Your task to perform on an android device: Go to accessibility settings Image 0: 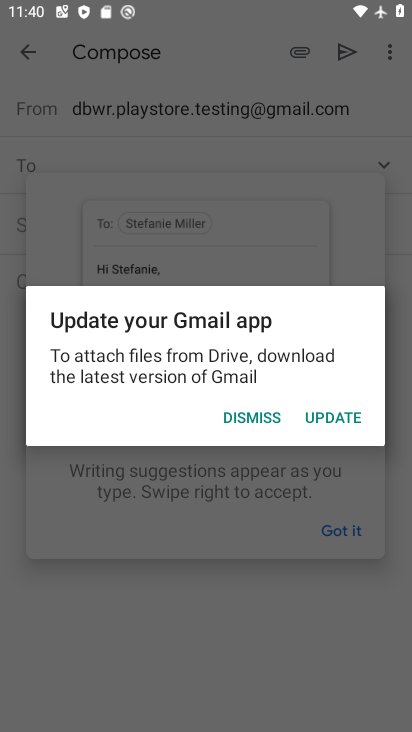
Step 0: press back button
Your task to perform on an android device: Go to accessibility settings Image 1: 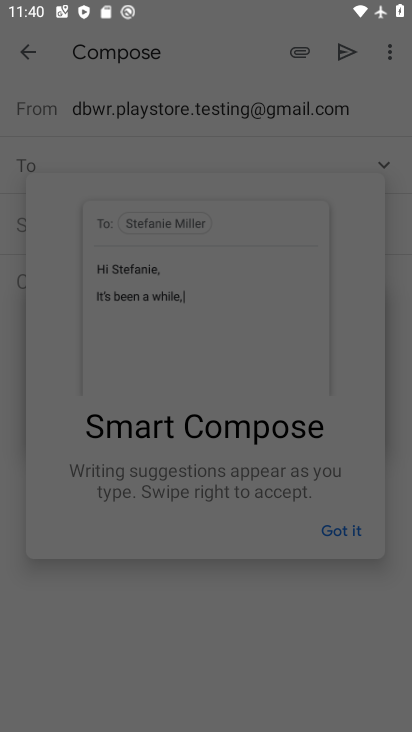
Step 1: press back button
Your task to perform on an android device: Go to accessibility settings Image 2: 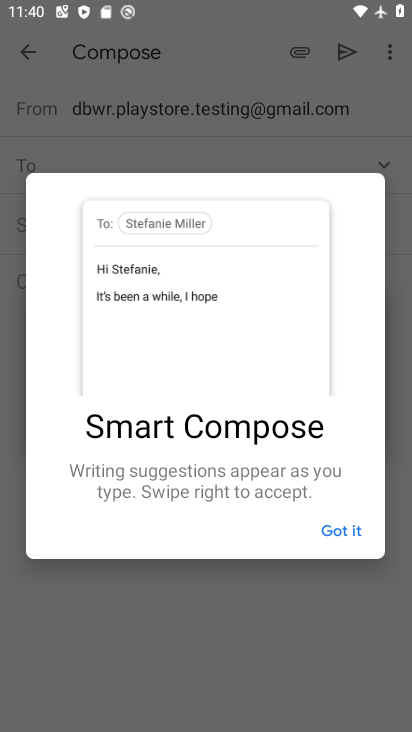
Step 2: press home button
Your task to perform on an android device: Go to accessibility settings Image 3: 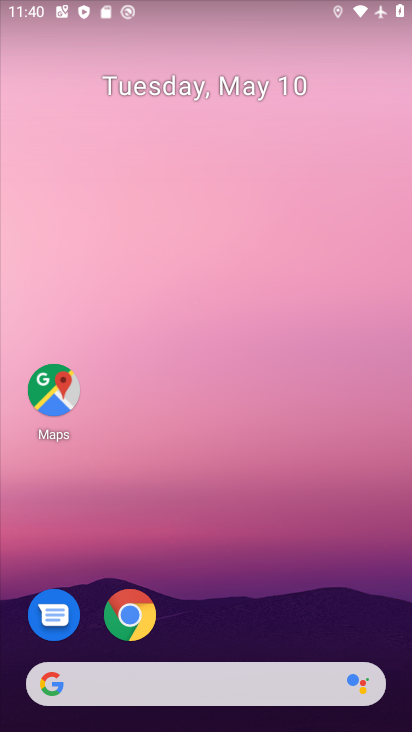
Step 3: drag from (259, 550) to (256, 104)
Your task to perform on an android device: Go to accessibility settings Image 4: 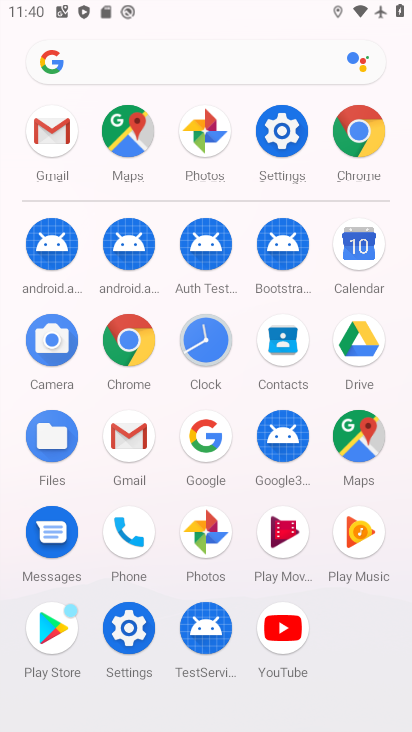
Step 4: drag from (16, 492) to (25, 224)
Your task to perform on an android device: Go to accessibility settings Image 5: 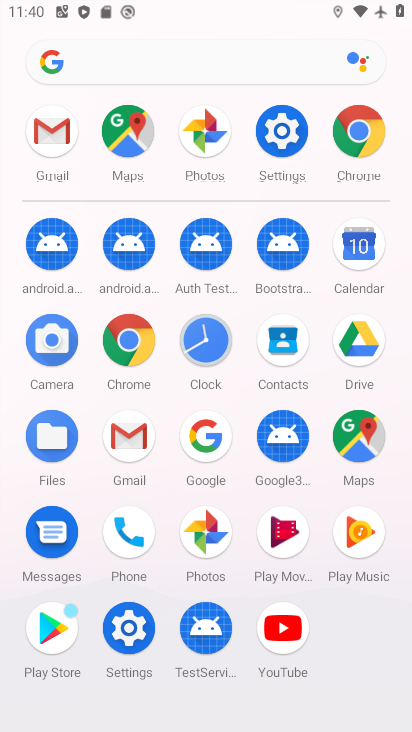
Step 5: click (277, 128)
Your task to perform on an android device: Go to accessibility settings Image 6: 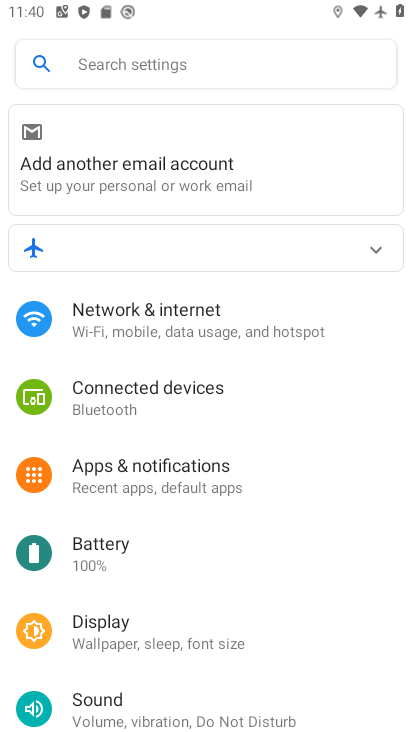
Step 6: drag from (266, 517) to (317, 181)
Your task to perform on an android device: Go to accessibility settings Image 7: 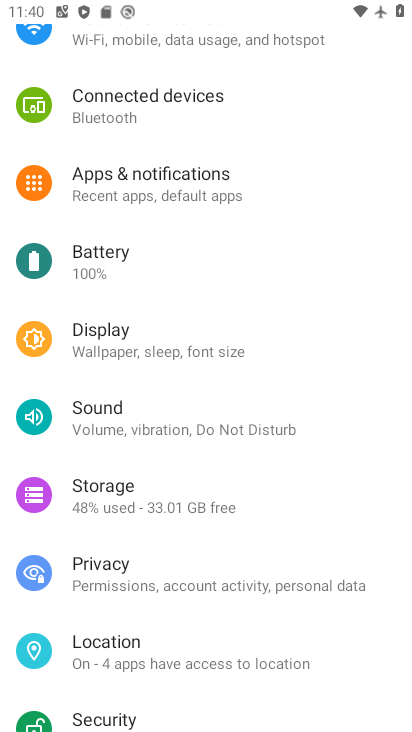
Step 7: drag from (262, 488) to (259, 146)
Your task to perform on an android device: Go to accessibility settings Image 8: 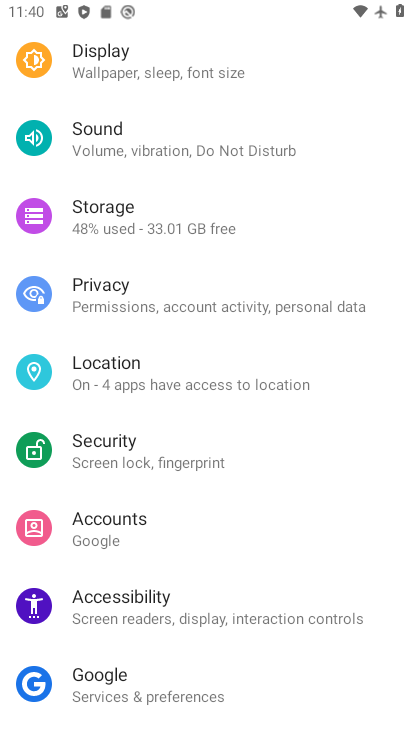
Step 8: drag from (237, 477) to (274, 176)
Your task to perform on an android device: Go to accessibility settings Image 9: 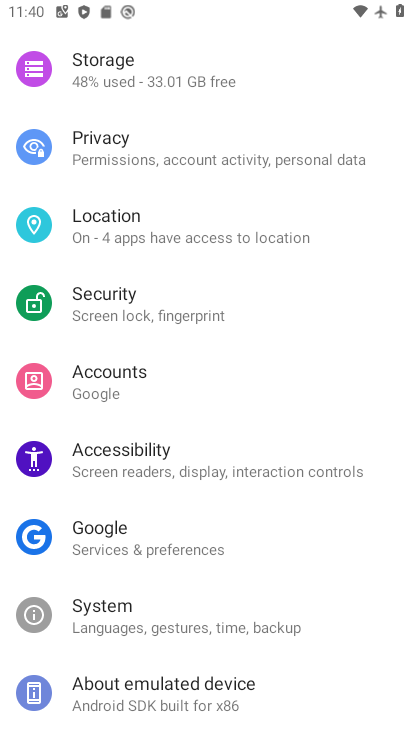
Step 9: drag from (308, 581) to (278, 114)
Your task to perform on an android device: Go to accessibility settings Image 10: 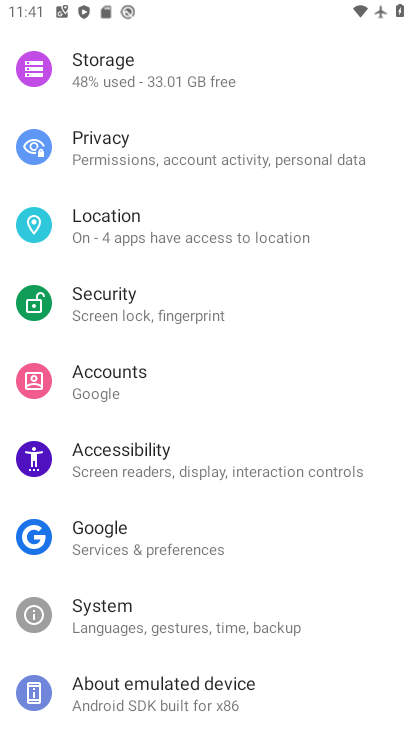
Step 10: drag from (251, 191) to (250, 507)
Your task to perform on an android device: Go to accessibility settings Image 11: 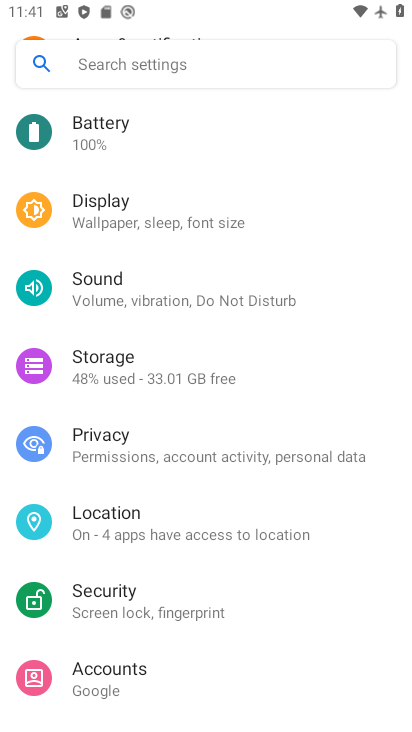
Step 11: drag from (220, 524) to (254, 148)
Your task to perform on an android device: Go to accessibility settings Image 12: 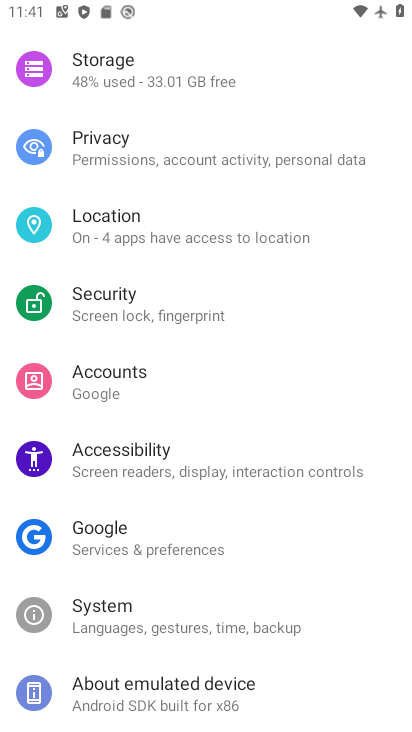
Step 12: click (151, 451)
Your task to perform on an android device: Go to accessibility settings Image 13: 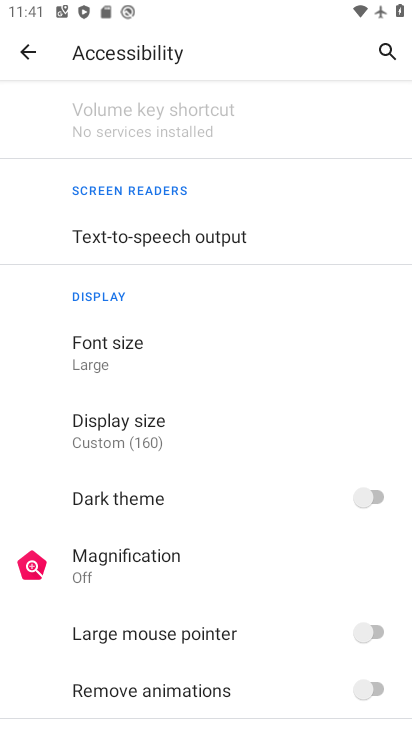
Step 13: task complete